Your task to perform on an android device: Go to display settings Image 0: 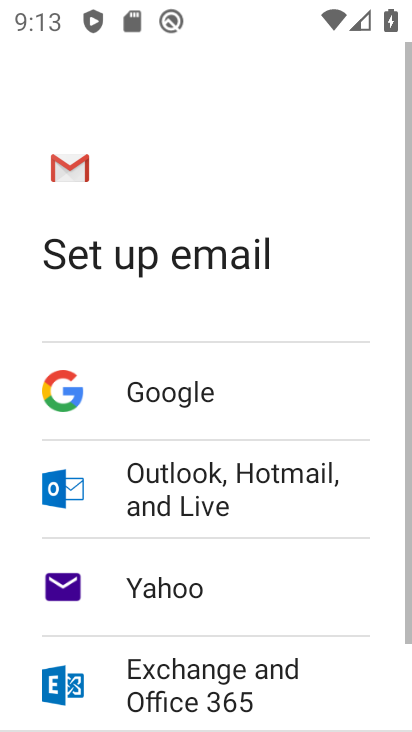
Step 0: press home button
Your task to perform on an android device: Go to display settings Image 1: 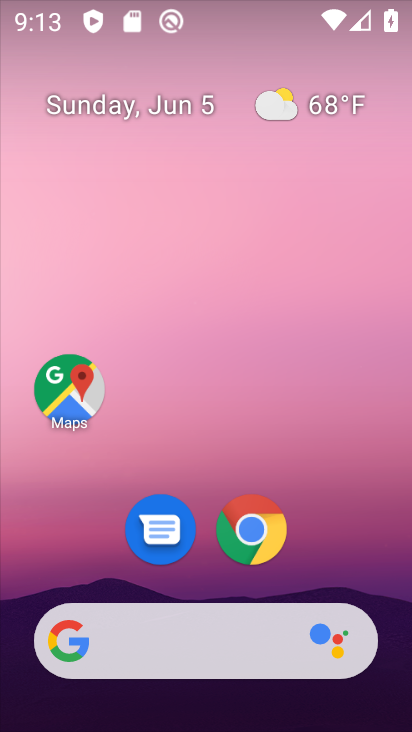
Step 1: drag from (274, 669) to (405, 11)
Your task to perform on an android device: Go to display settings Image 2: 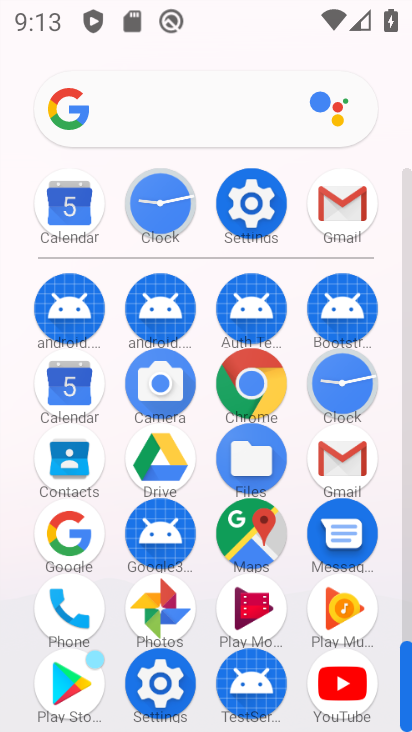
Step 2: click (256, 224)
Your task to perform on an android device: Go to display settings Image 3: 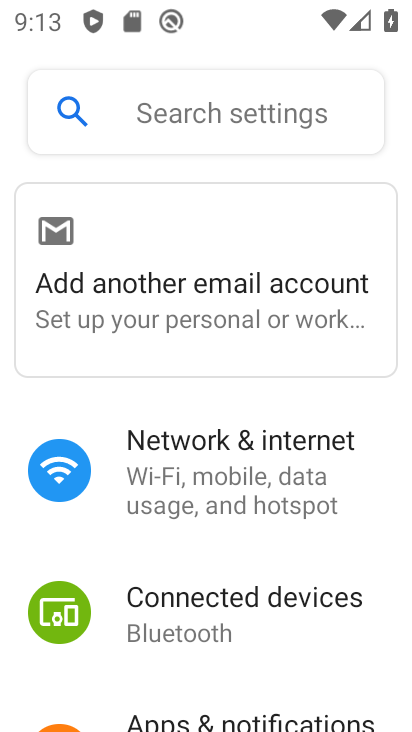
Step 3: drag from (270, 667) to (383, 16)
Your task to perform on an android device: Go to display settings Image 4: 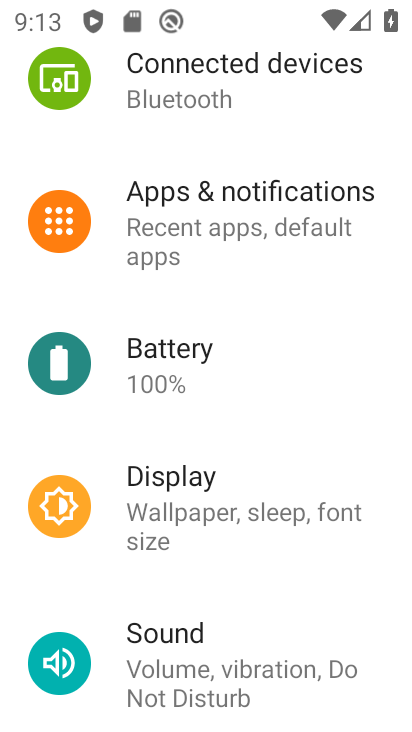
Step 4: click (266, 500)
Your task to perform on an android device: Go to display settings Image 5: 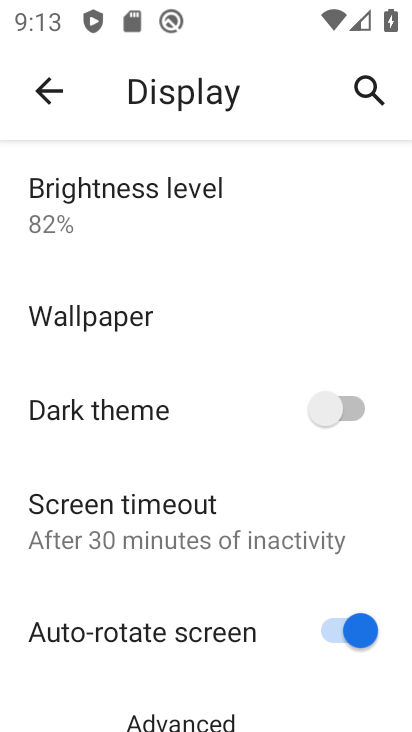
Step 5: task complete